Your task to perform on an android device: open chrome privacy settings Image 0: 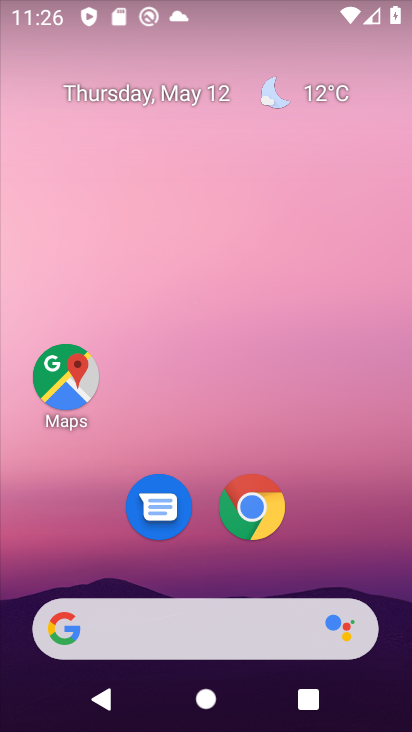
Step 0: drag from (213, 583) to (256, 0)
Your task to perform on an android device: open chrome privacy settings Image 1: 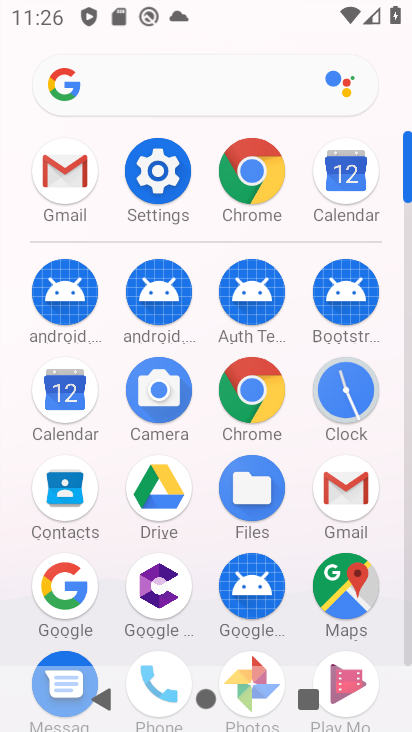
Step 1: click (249, 191)
Your task to perform on an android device: open chrome privacy settings Image 2: 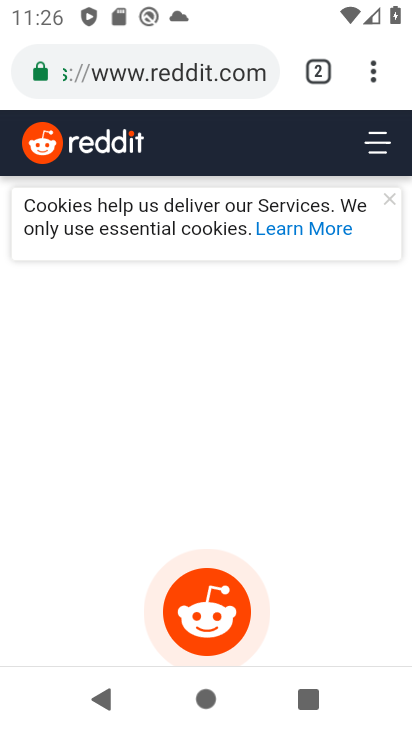
Step 2: click (381, 86)
Your task to perform on an android device: open chrome privacy settings Image 3: 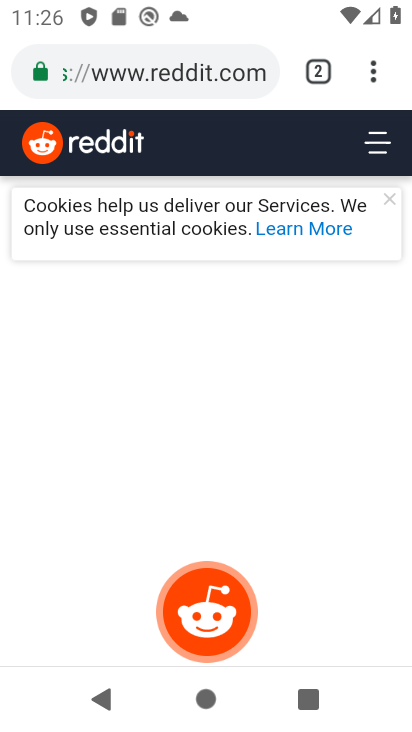
Step 3: click (366, 80)
Your task to perform on an android device: open chrome privacy settings Image 4: 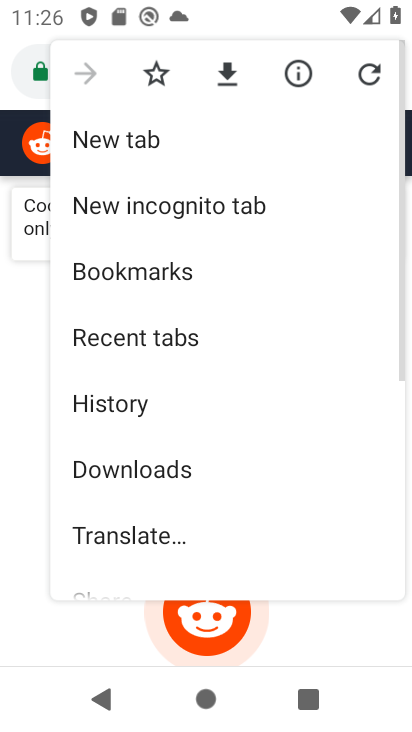
Step 4: drag from (142, 495) to (174, 53)
Your task to perform on an android device: open chrome privacy settings Image 5: 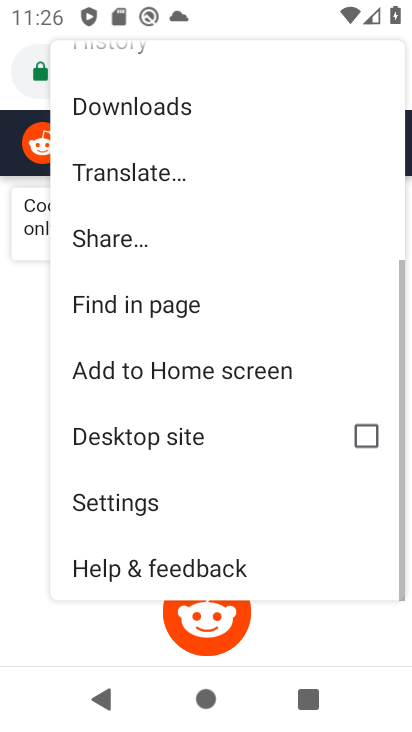
Step 5: click (135, 507)
Your task to perform on an android device: open chrome privacy settings Image 6: 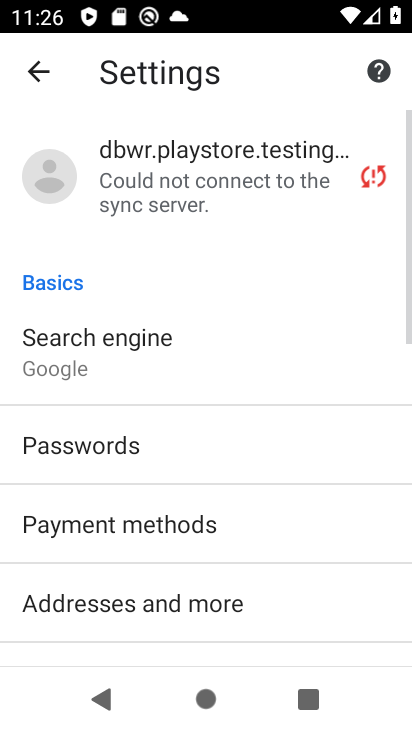
Step 6: drag from (164, 551) to (201, 232)
Your task to perform on an android device: open chrome privacy settings Image 7: 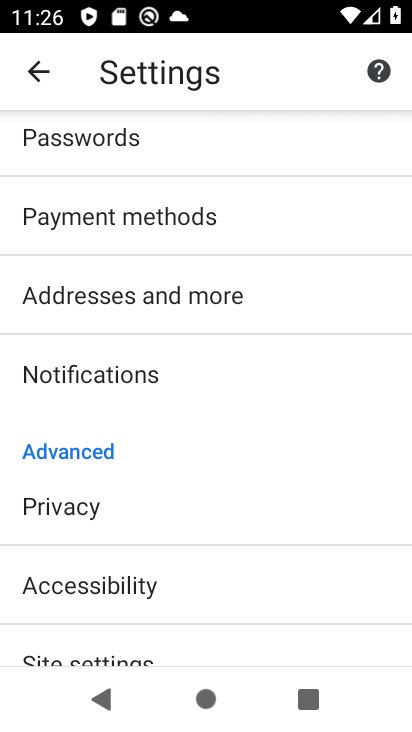
Step 7: click (89, 500)
Your task to perform on an android device: open chrome privacy settings Image 8: 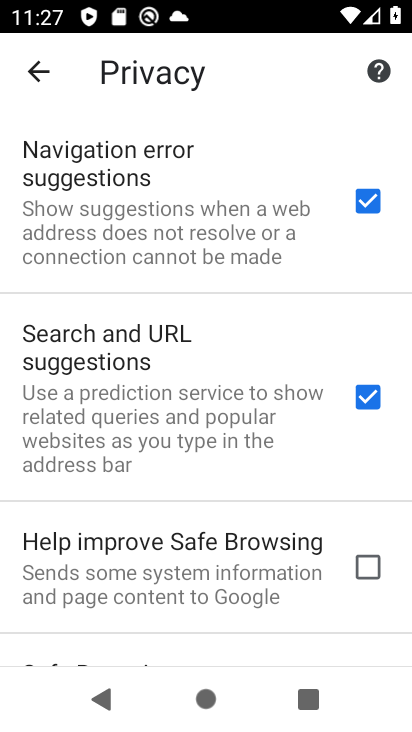
Step 8: task complete